Your task to perform on an android device: Open Chrome and go to the settings page Image 0: 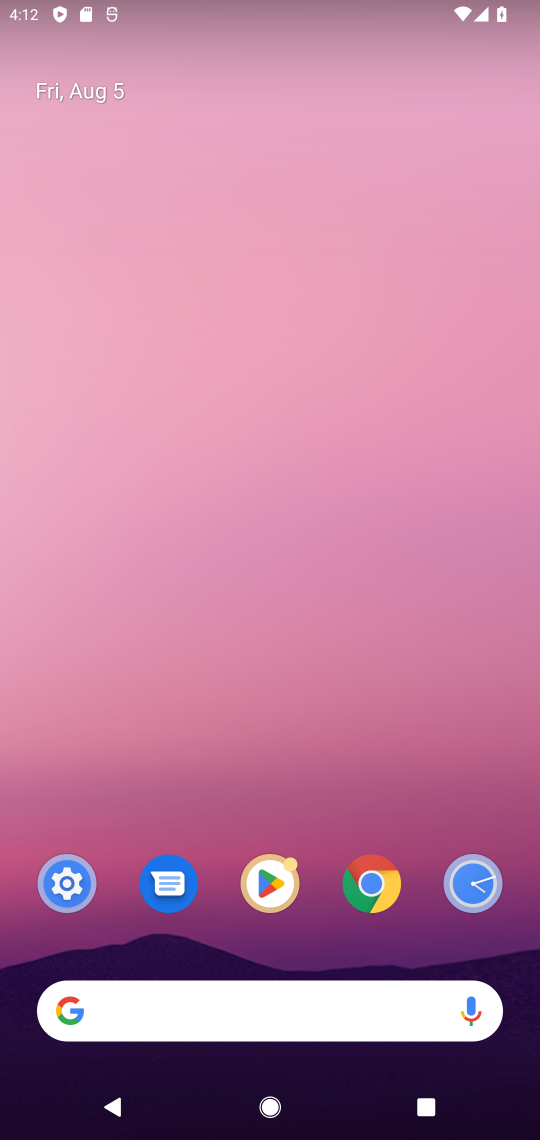
Step 0: click (367, 893)
Your task to perform on an android device: Open Chrome and go to the settings page Image 1: 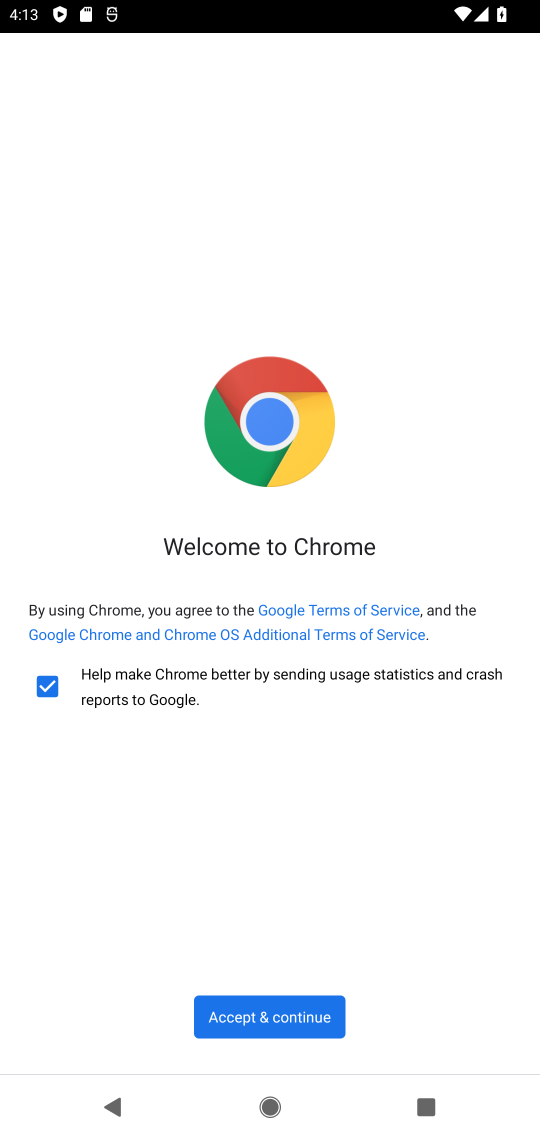
Step 1: click (272, 1027)
Your task to perform on an android device: Open Chrome and go to the settings page Image 2: 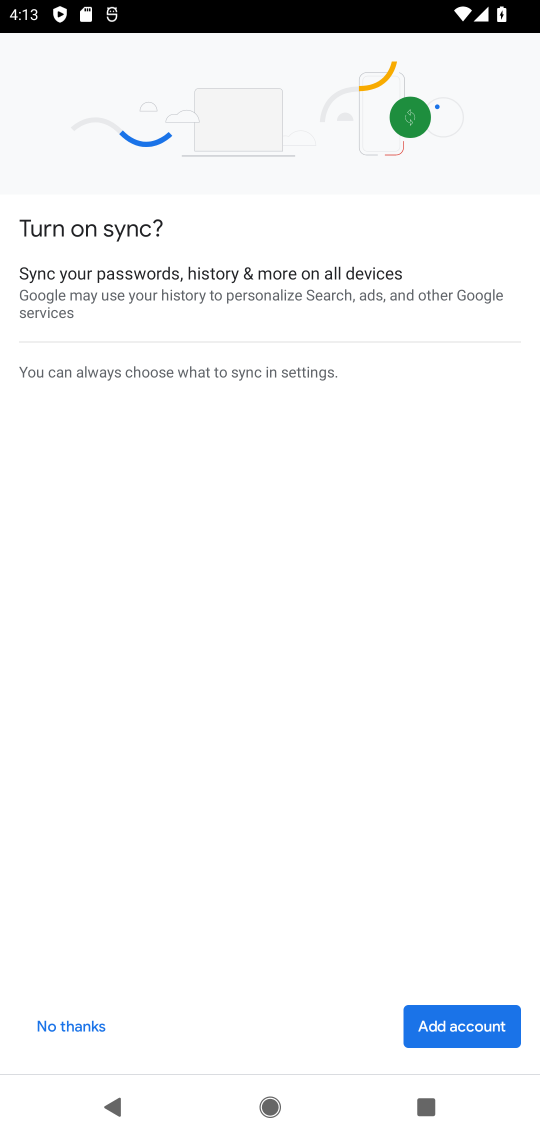
Step 2: click (96, 1029)
Your task to perform on an android device: Open Chrome and go to the settings page Image 3: 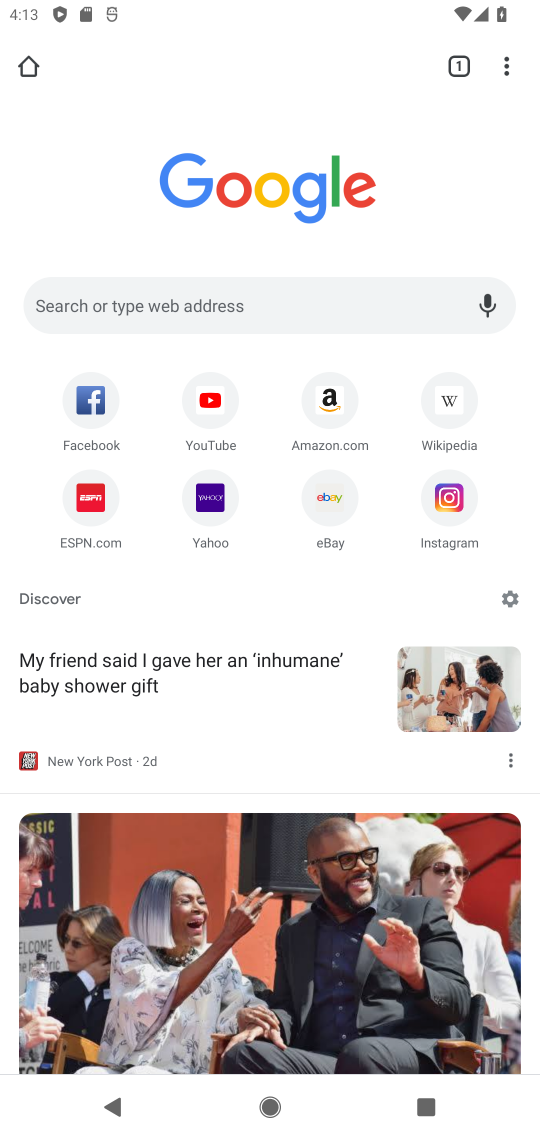
Step 3: click (508, 68)
Your task to perform on an android device: Open Chrome and go to the settings page Image 4: 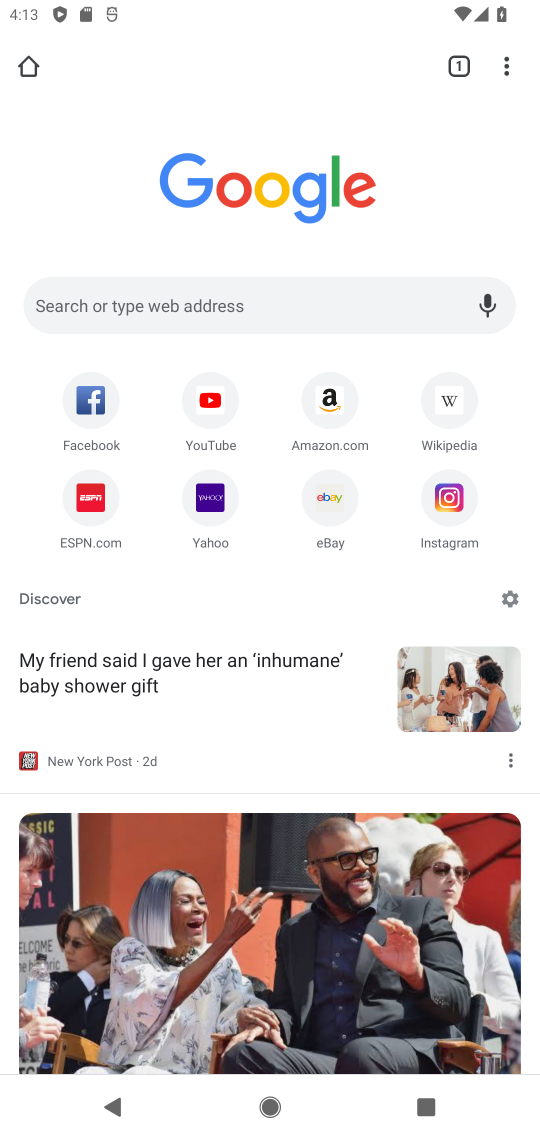
Step 4: click (504, 72)
Your task to perform on an android device: Open Chrome and go to the settings page Image 5: 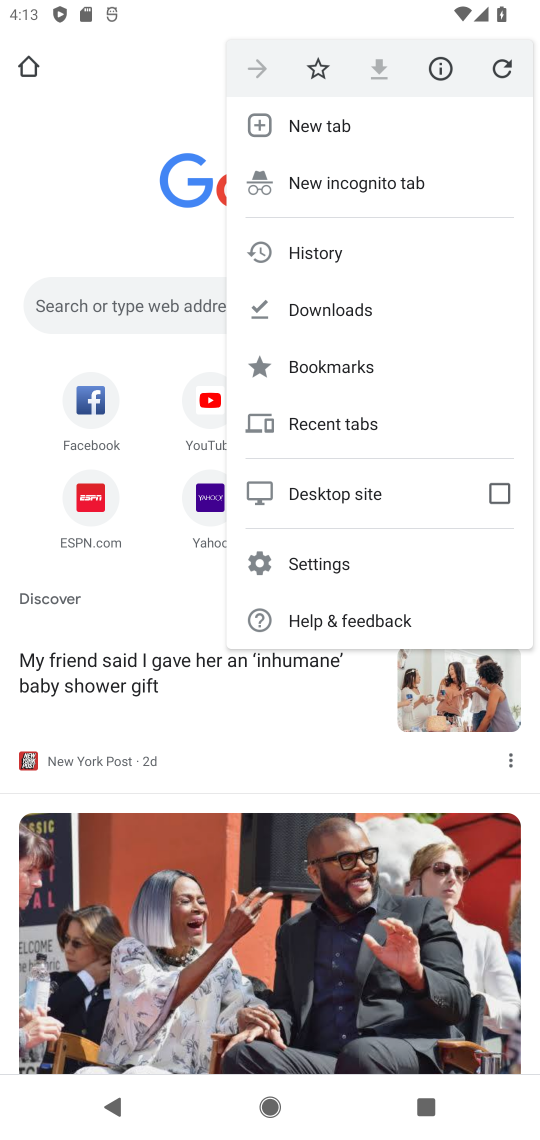
Step 5: click (316, 563)
Your task to perform on an android device: Open Chrome and go to the settings page Image 6: 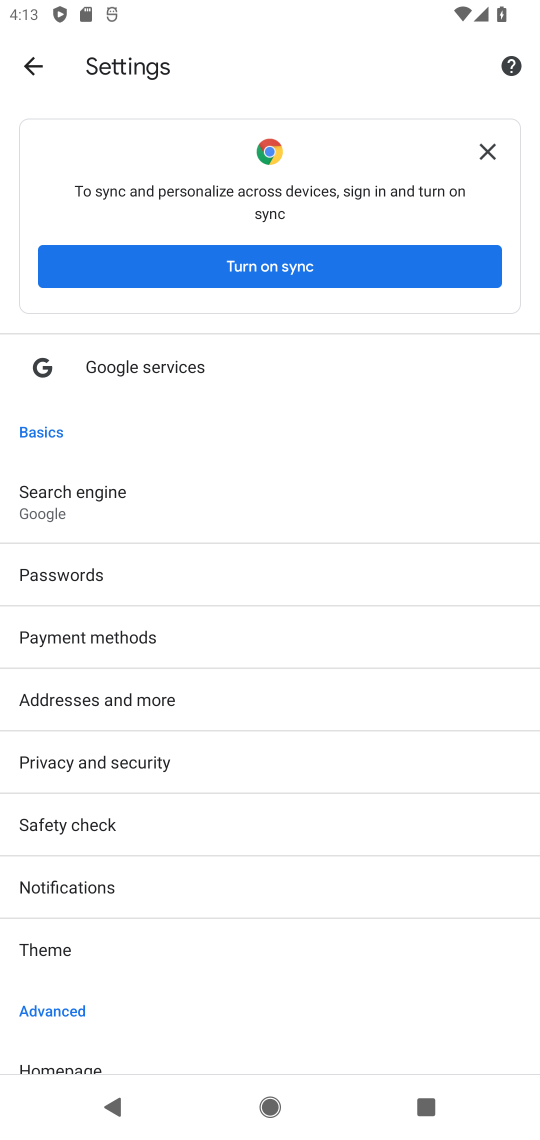
Step 6: task complete